Your task to perform on an android device: Open Maps and search for coffee Image 0: 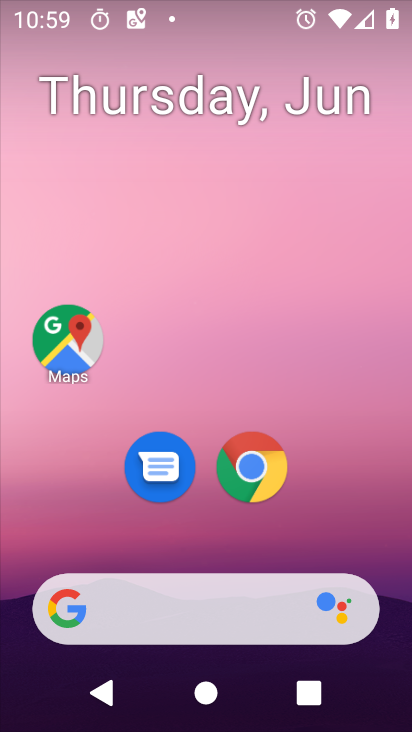
Step 0: click (52, 336)
Your task to perform on an android device: Open Maps and search for coffee Image 1: 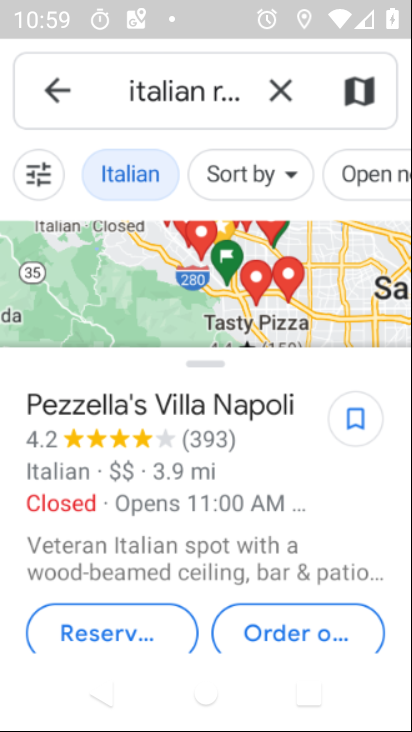
Step 1: click (279, 96)
Your task to perform on an android device: Open Maps and search for coffee Image 2: 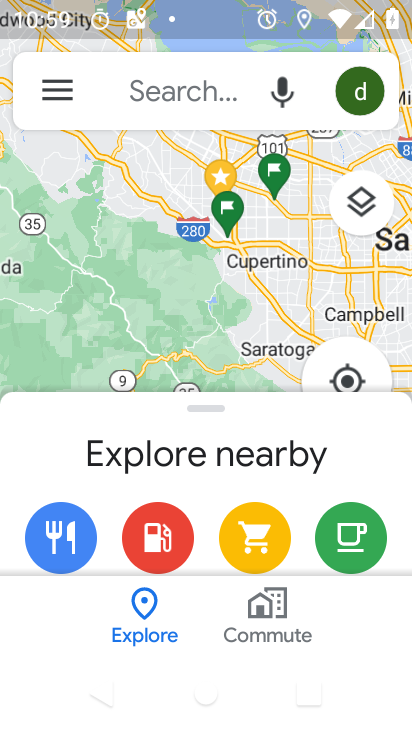
Step 2: click (178, 91)
Your task to perform on an android device: Open Maps and search for coffee Image 3: 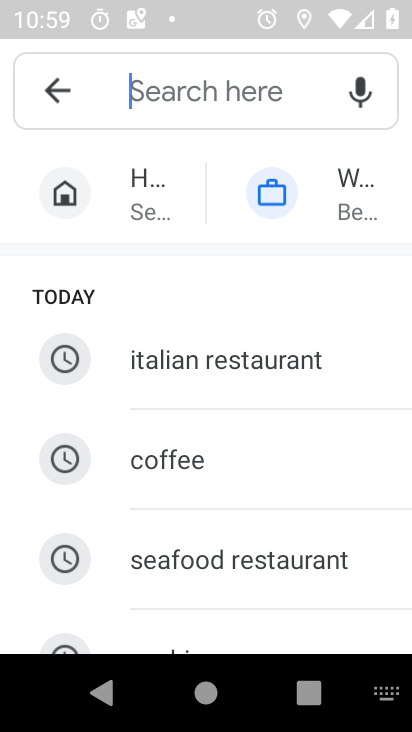
Step 3: click (151, 442)
Your task to perform on an android device: Open Maps and search for coffee Image 4: 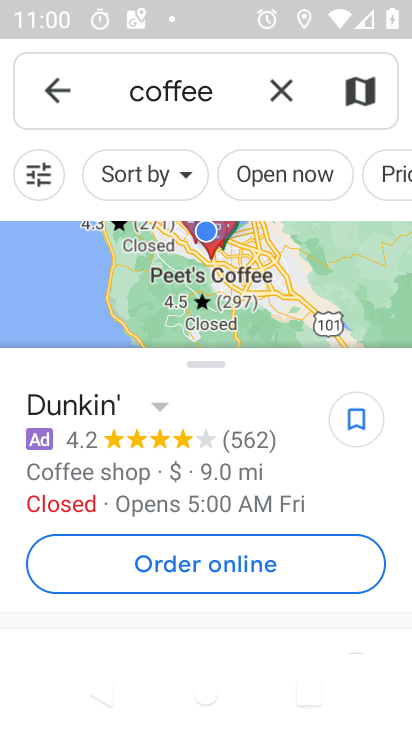
Step 4: task complete